Your task to perform on an android device: check battery use Image 0: 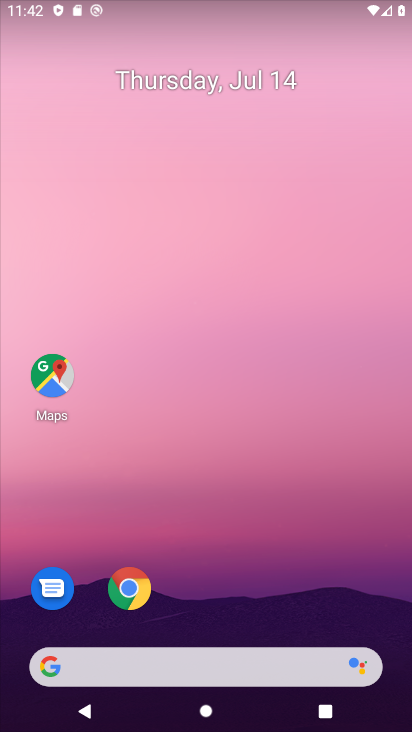
Step 0: drag from (141, 705) to (205, 8)
Your task to perform on an android device: check battery use Image 1: 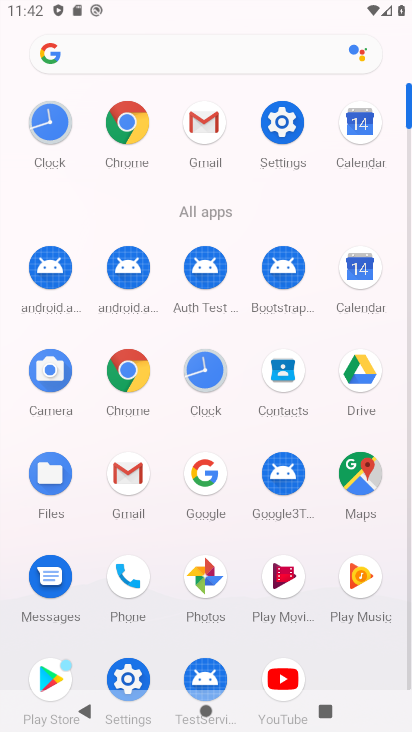
Step 1: click (275, 124)
Your task to perform on an android device: check battery use Image 2: 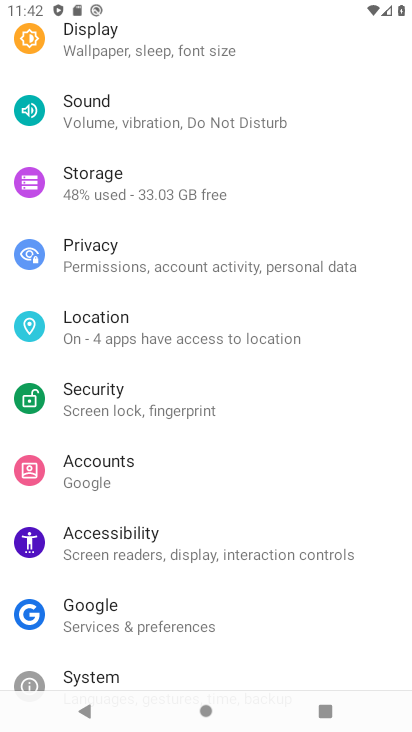
Step 2: drag from (293, 589) to (235, 7)
Your task to perform on an android device: check battery use Image 3: 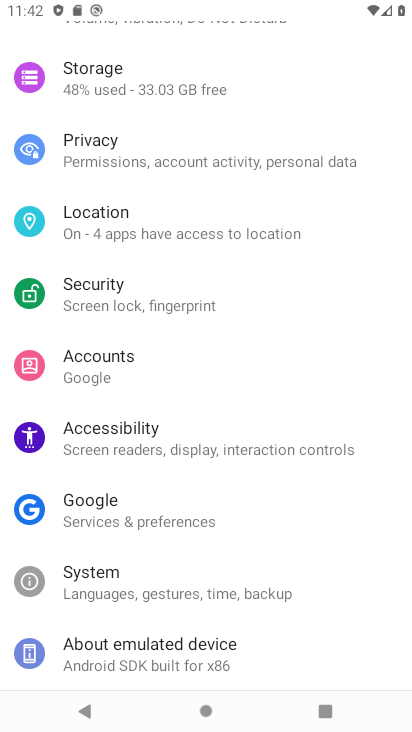
Step 3: drag from (314, 322) to (226, 638)
Your task to perform on an android device: check battery use Image 4: 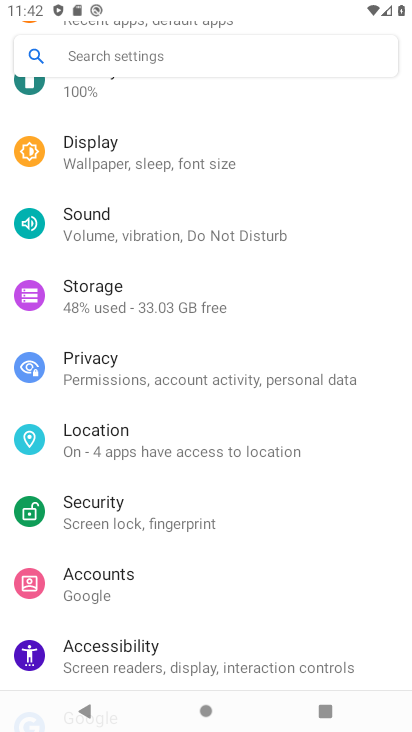
Step 4: drag from (368, 142) to (283, 642)
Your task to perform on an android device: check battery use Image 5: 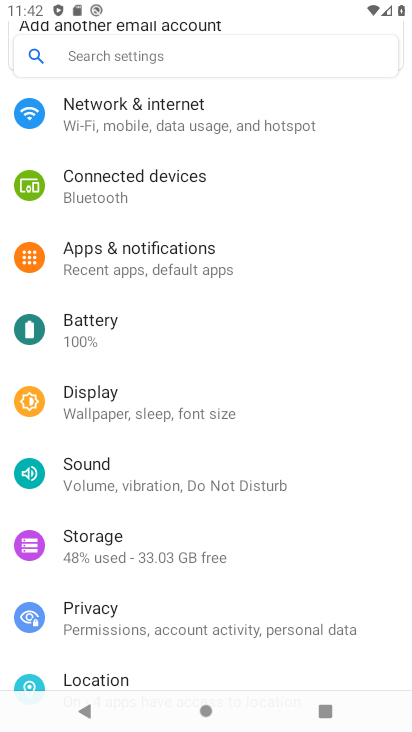
Step 5: click (71, 331)
Your task to perform on an android device: check battery use Image 6: 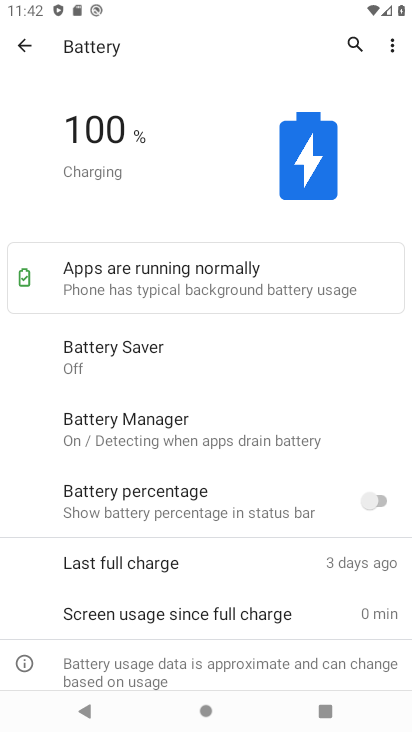
Step 6: task complete